Your task to perform on an android device: turn on priority inbox in the gmail app Image 0: 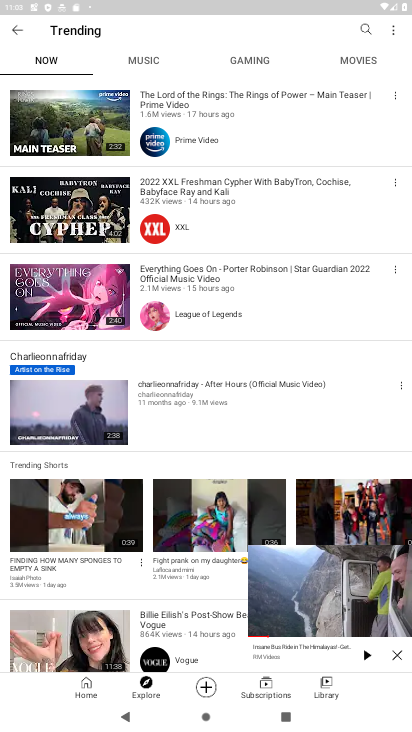
Step 0: press home button
Your task to perform on an android device: turn on priority inbox in the gmail app Image 1: 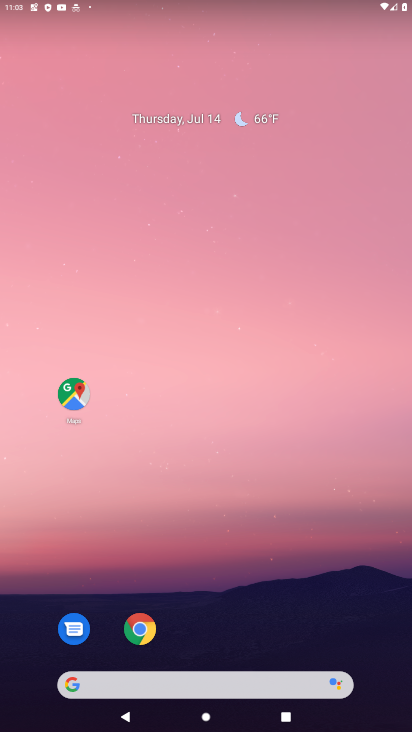
Step 1: drag from (250, 613) to (212, 107)
Your task to perform on an android device: turn on priority inbox in the gmail app Image 2: 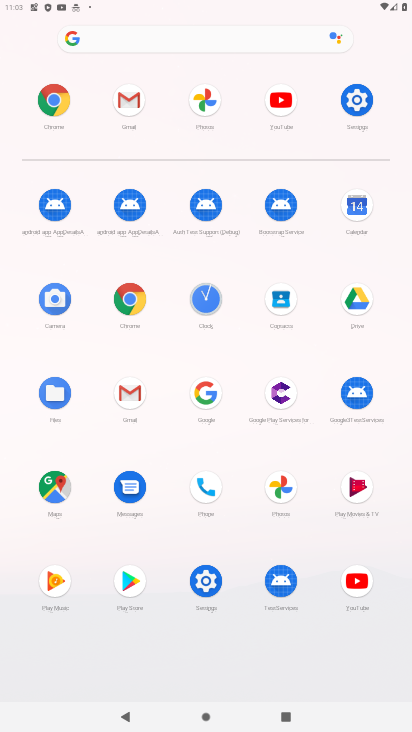
Step 2: click (128, 100)
Your task to perform on an android device: turn on priority inbox in the gmail app Image 3: 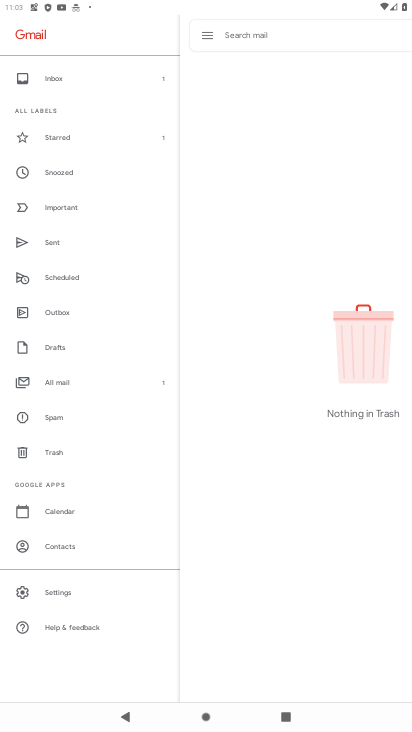
Step 3: click (70, 592)
Your task to perform on an android device: turn on priority inbox in the gmail app Image 4: 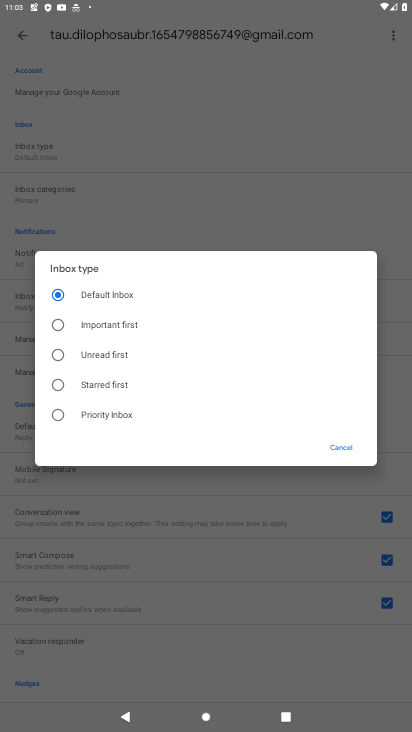
Step 4: click (55, 421)
Your task to perform on an android device: turn on priority inbox in the gmail app Image 5: 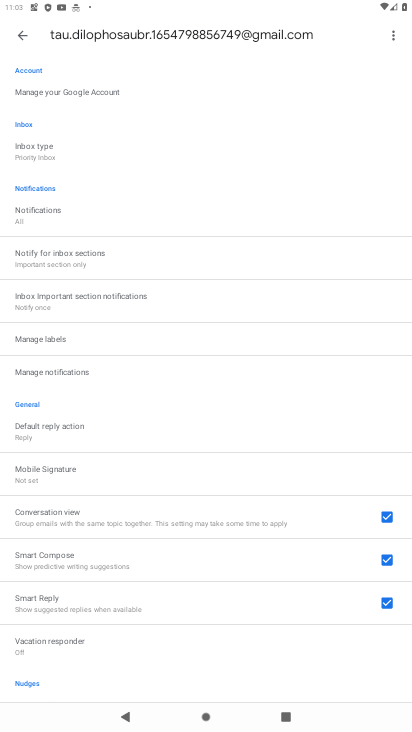
Step 5: task complete